Your task to perform on an android device: Open Maps and search for coffee Image 0: 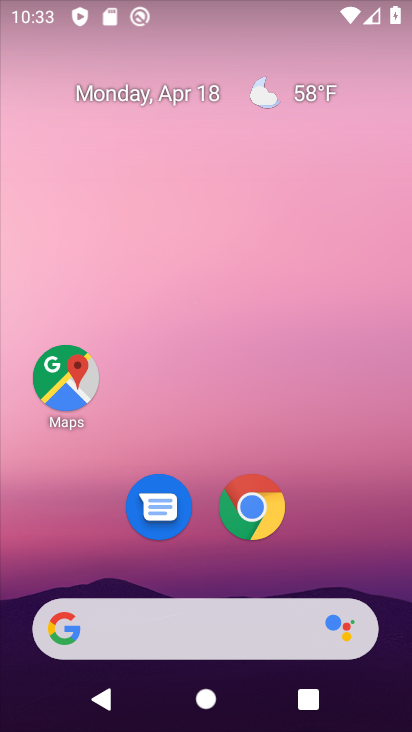
Step 0: click (77, 373)
Your task to perform on an android device: Open Maps and search for coffee Image 1: 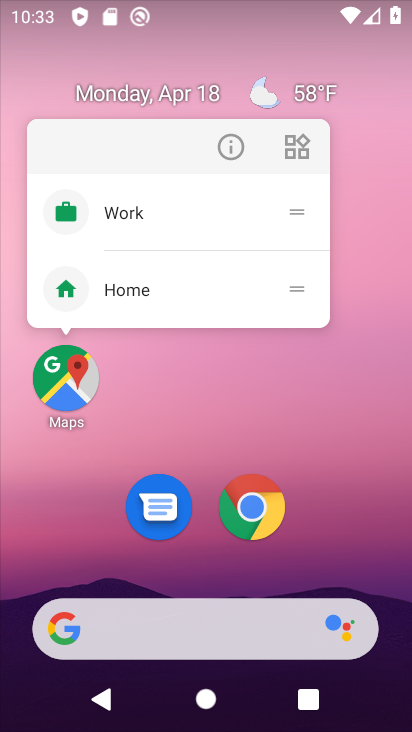
Step 1: click (77, 373)
Your task to perform on an android device: Open Maps and search for coffee Image 2: 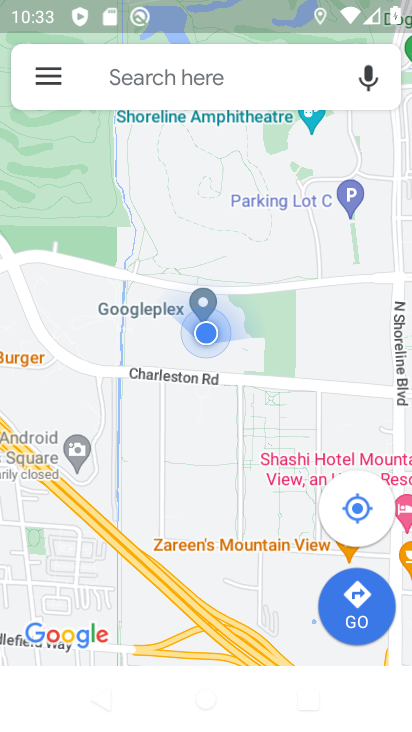
Step 2: click (161, 90)
Your task to perform on an android device: Open Maps and search for coffee Image 3: 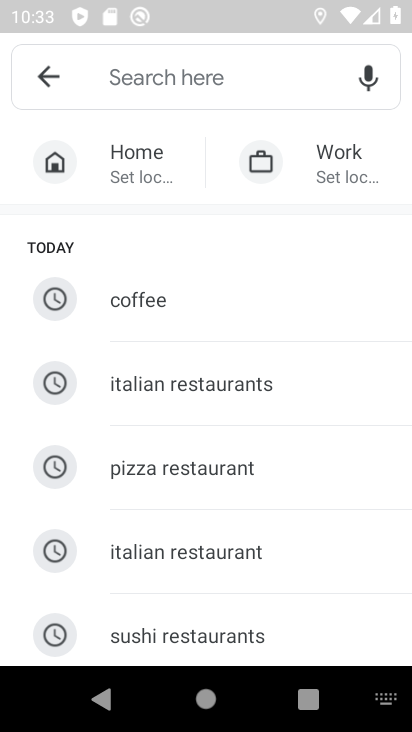
Step 3: click (177, 312)
Your task to perform on an android device: Open Maps and search for coffee Image 4: 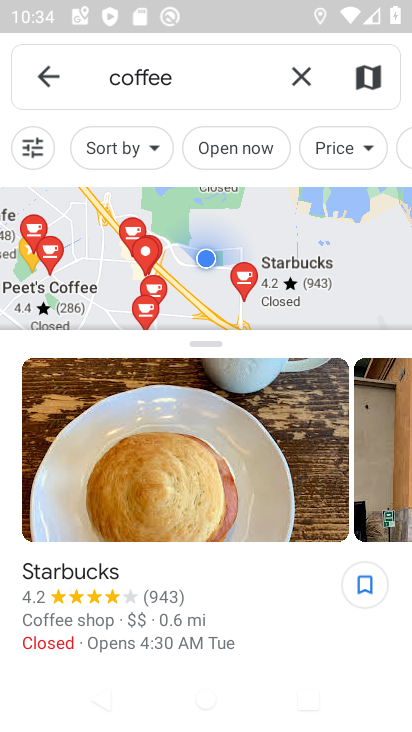
Step 4: task complete